Your task to perform on an android device: What's the weather today? Image 0: 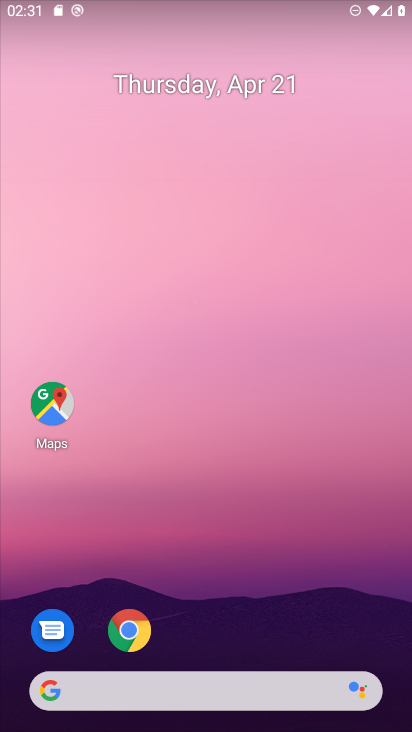
Step 0: click (169, 684)
Your task to perform on an android device: What's the weather today? Image 1: 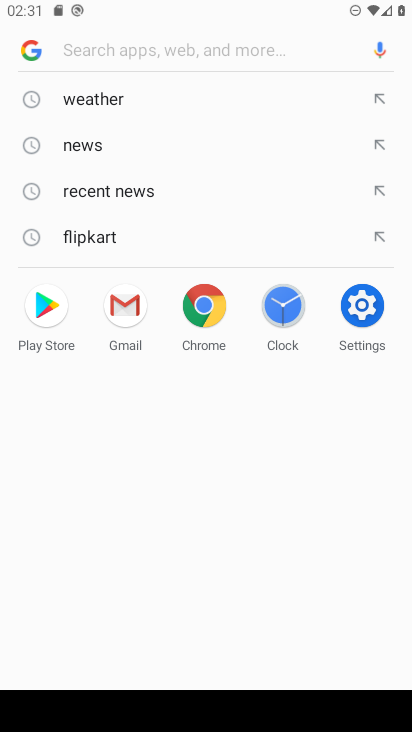
Step 1: click (180, 89)
Your task to perform on an android device: What's the weather today? Image 2: 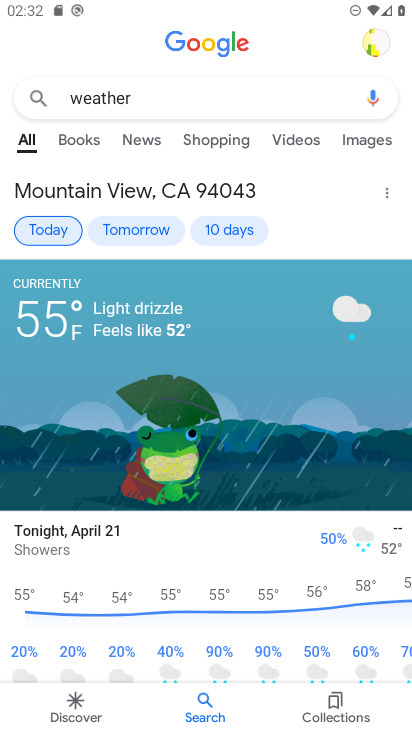
Step 2: task complete